Your task to perform on an android device: turn on bluetooth scan Image 0: 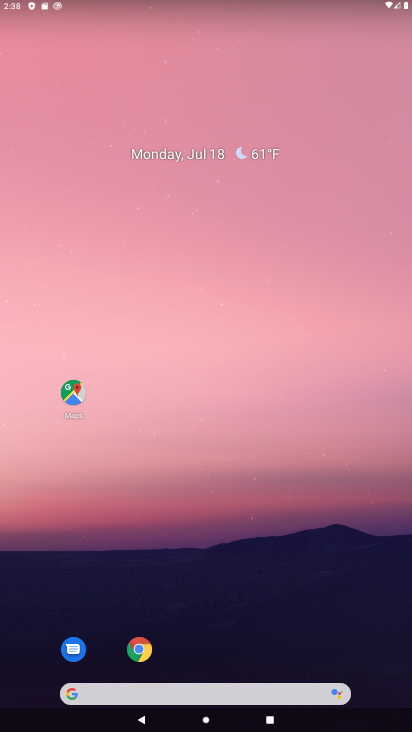
Step 0: drag from (98, 366) to (119, 233)
Your task to perform on an android device: turn on bluetooth scan Image 1: 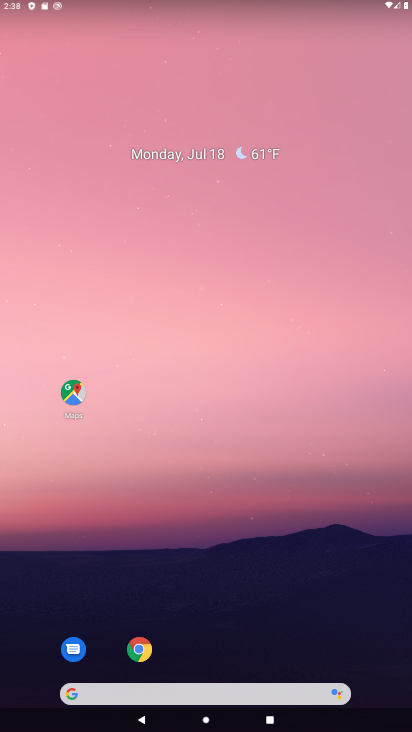
Step 1: drag from (60, 546) to (95, 292)
Your task to perform on an android device: turn on bluetooth scan Image 2: 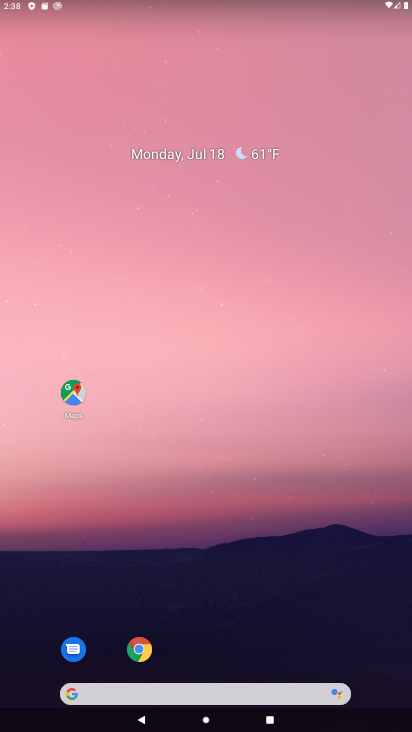
Step 2: drag from (12, 693) to (125, 235)
Your task to perform on an android device: turn on bluetooth scan Image 3: 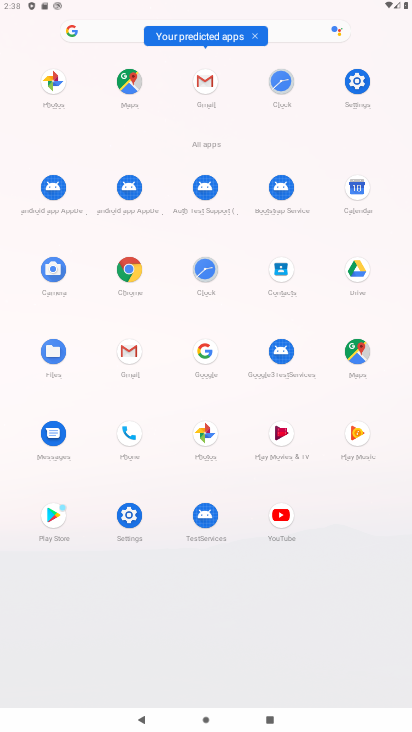
Step 3: click (123, 515)
Your task to perform on an android device: turn on bluetooth scan Image 4: 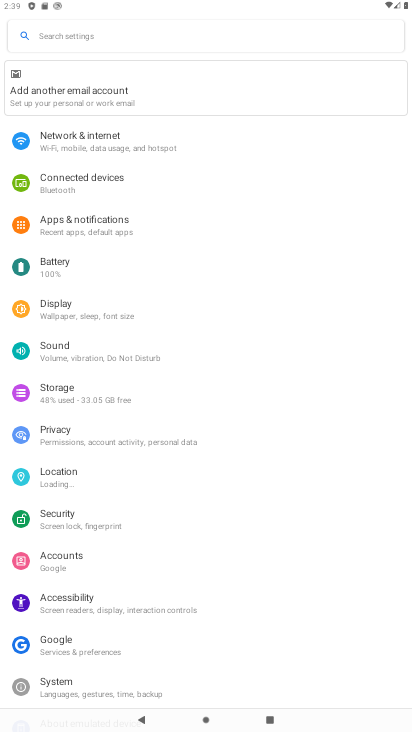
Step 4: click (74, 137)
Your task to perform on an android device: turn on bluetooth scan Image 5: 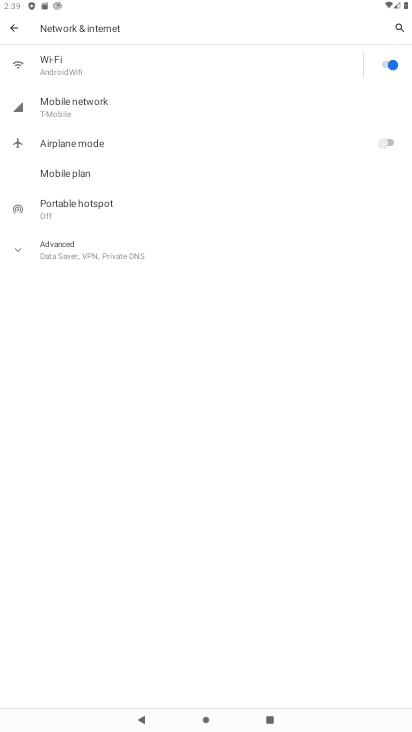
Step 5: click (16, 26)
Your task to perform on an android device: turn on bluetooth scan Image 6: 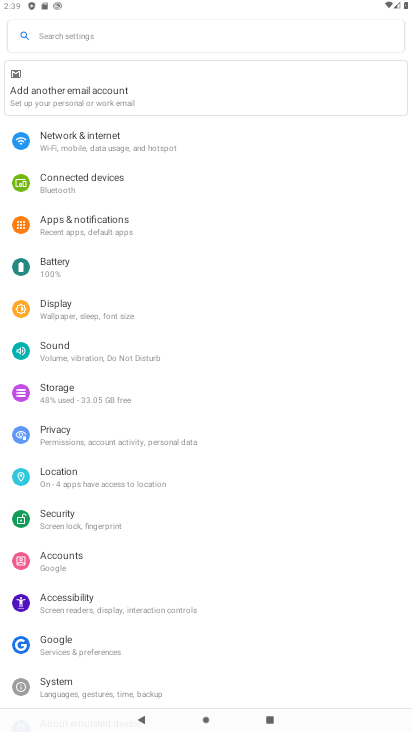
Step 6: click (84, 189)
Your task to perform on an android device: turn on bluetooth scan Image 7: 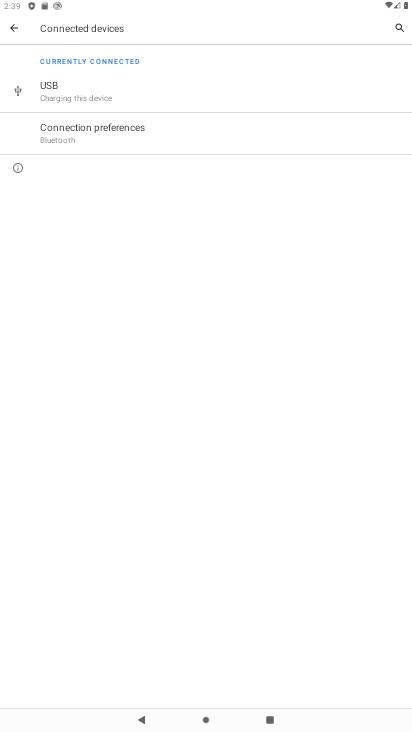
Step 7: click (92, 87)
Your task to perform on an android device: turn on bluetooth scan Image 8: 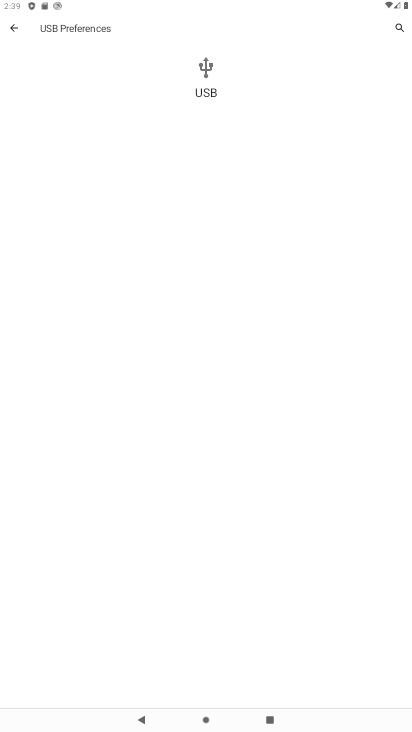
Step 8: click (20, 27)
Your task to perform on an android device: turn on bluetooth scan Image 9: 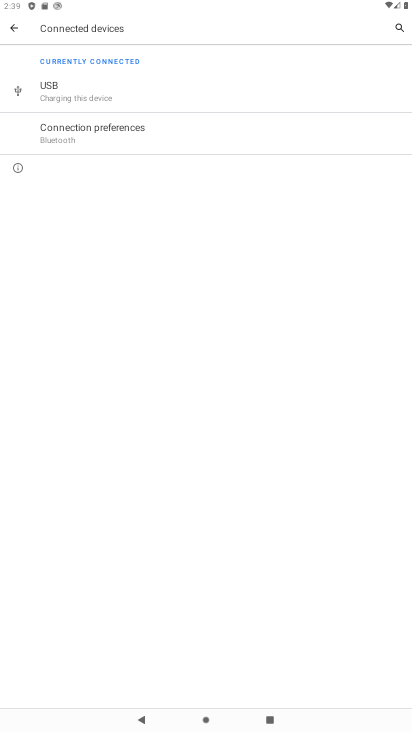
Step 9: task complete